Your task to perform on an android device: empty trash in google photos Image 0: 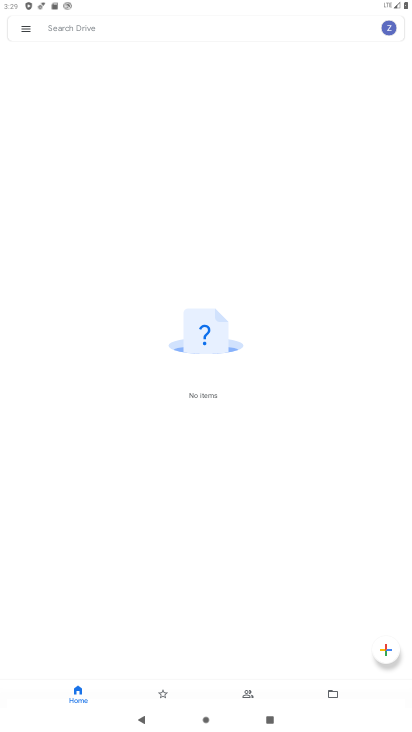
Step 0: press home button
Your task to perform on an android device: empty trash in google photos Image 1: 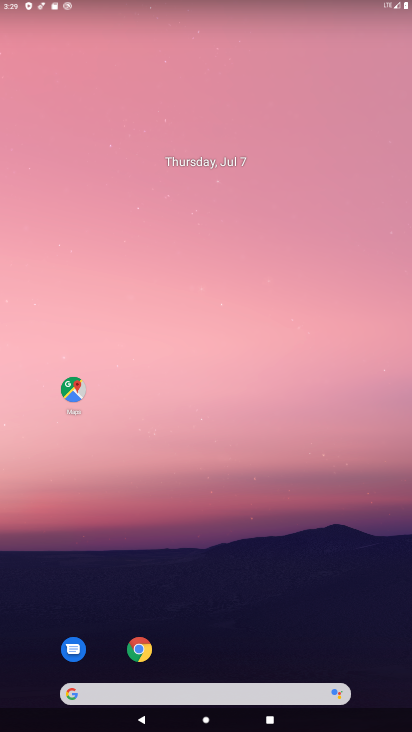
Step 1: drag from (279, 658) to (263, 285)
Your task to perform on an android device: empty trash in google photos Image 2: 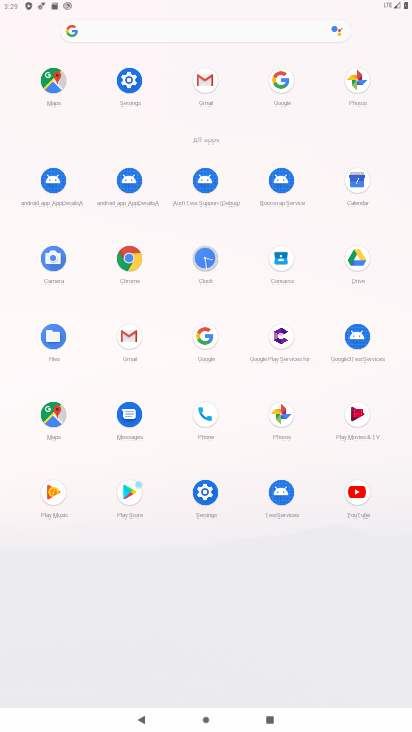
Step 2: click (283, 427)
Your task to perform on an android device: empty trash in google photos Image 3: 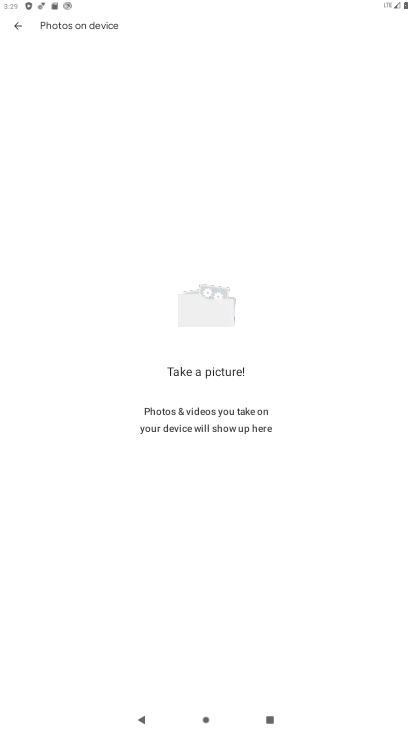
Step 3: click (17, 27)
Your task to perform on an android device: empty trash in google photos Image 4: 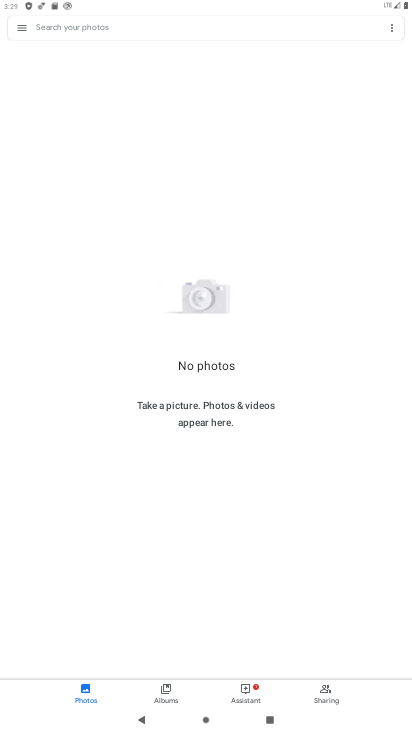
Step 4: click (17, 27)
Your task to perform on an android device: empty trash in google photos Image 5: 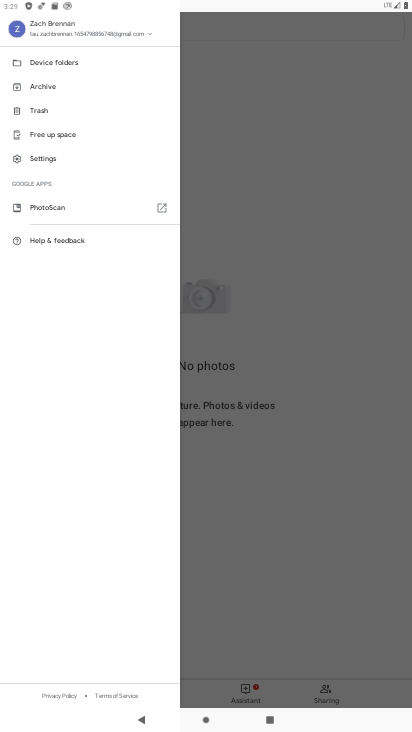
Step 5: click (56, 110)
Your task to perform on an android device: empty trash in google photos Image 6: 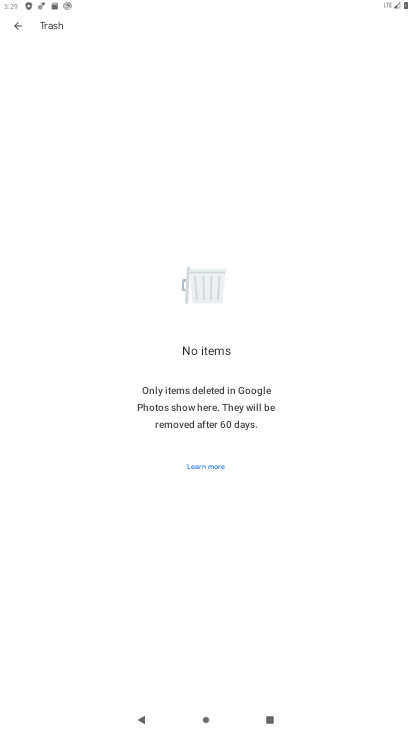
Step 6: task complete